Your task to perform on an android device: uninstall "Contacts" Image 0: 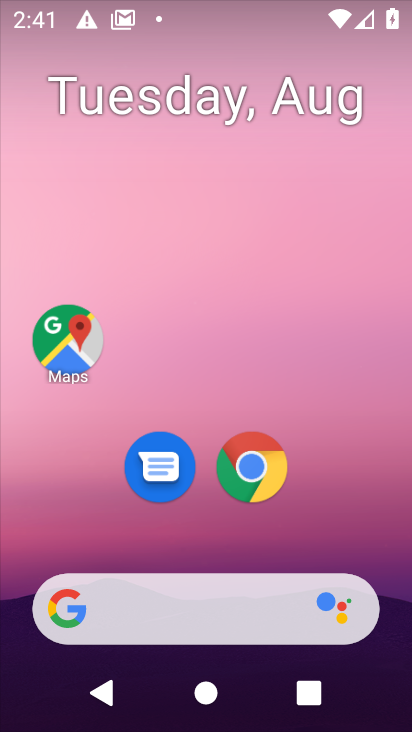
Step 0: drag from (372, 562) to (243, 38)
Your task to perform on an android device: uninstall "Contacts" Image 1: 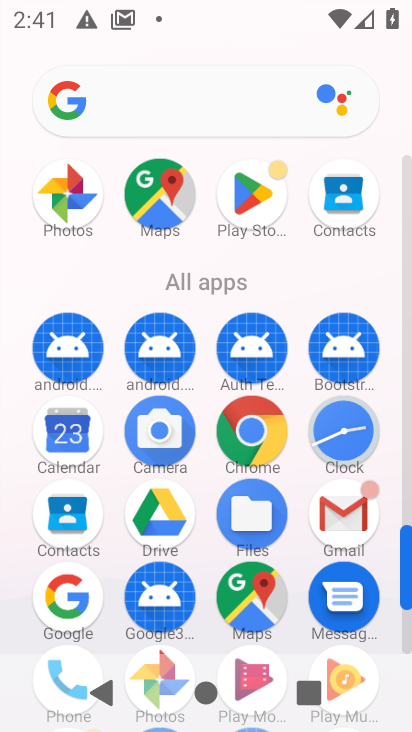
Step 1: click (336, 200)
Your task to perform on an android device: uninstall "Contacts" Image 2: 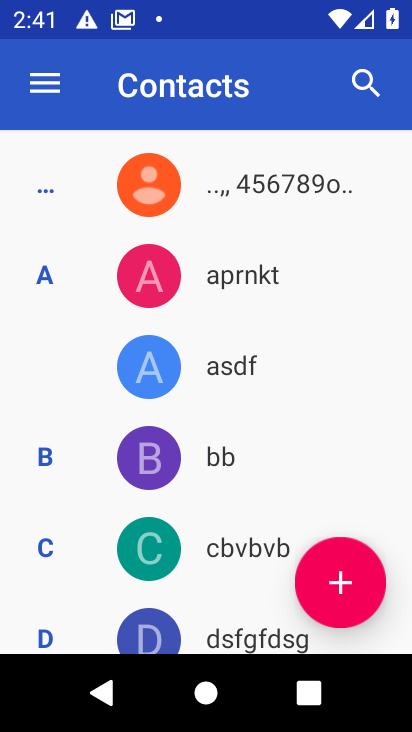
Step 2: task complete